Your task to perform on an android device: See recent photos Image 0: 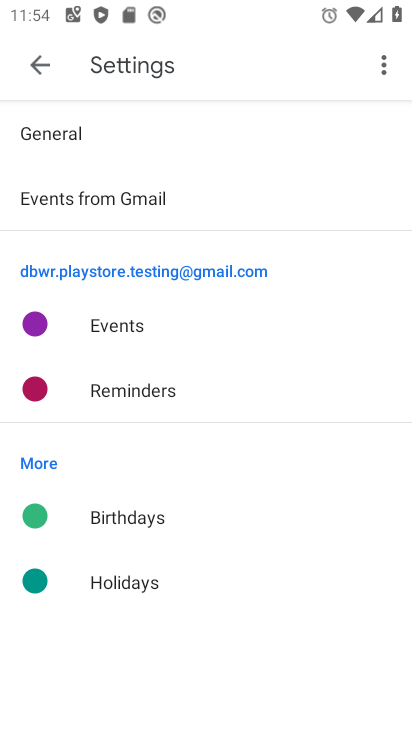
Step 0: press home button
Your task to perform on an android device: See recent photos Image 1: 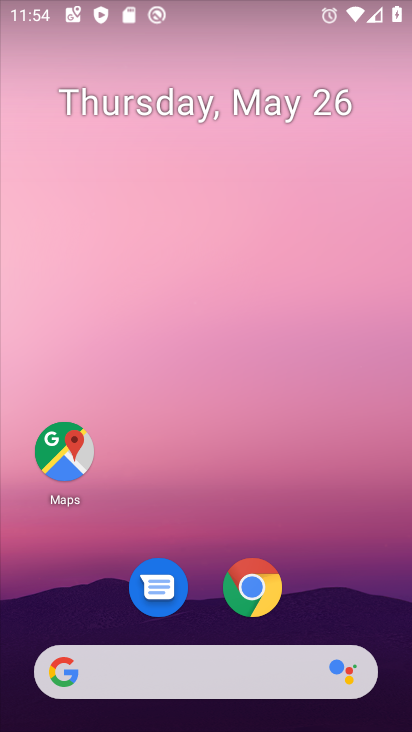
Step 1: drag from (216, 711) to (239, 34)
Your task to perform on an android device: See recent photos Image 2: 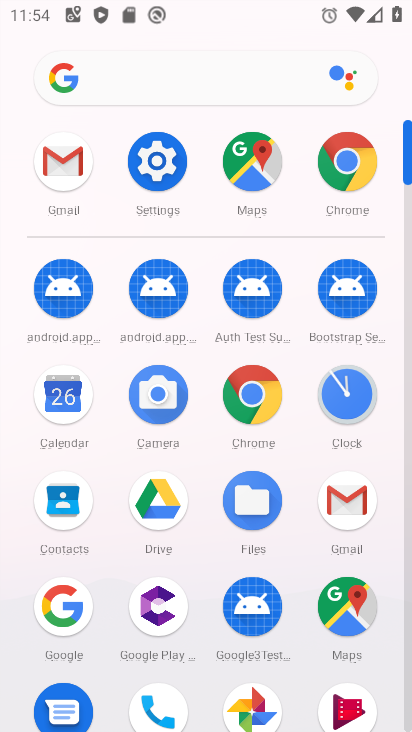
Step 2: click (264, 701)
Your task to perform on an android device: See recent photos Image 3: 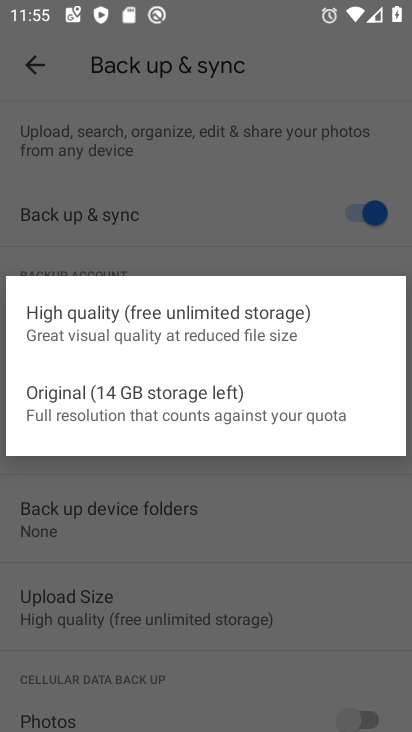
Step 3: click (280, 498)
Your task to perform on an android device: See recent photos Image 4: 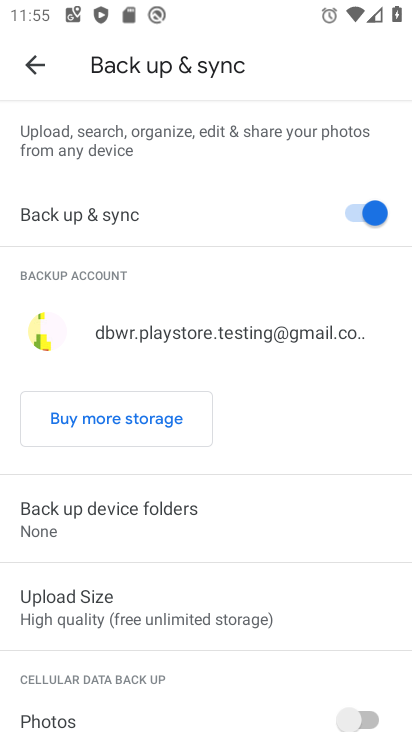
Step 4: click (28, 67)
Your task to perform on an android device: See recent photos Image 5: 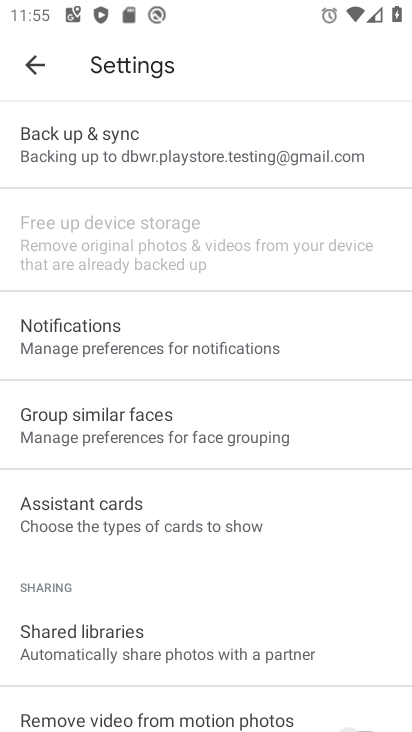
Step 5: click (35, 76)
Your task to perform on an android device: See recent photos Image 6: 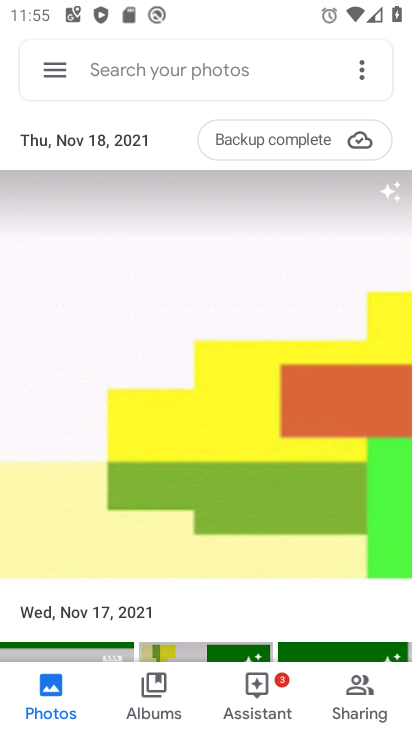
Step 6: task complete